Your task to perform on an android device: find snoozed emails in the gmail app Image 0: 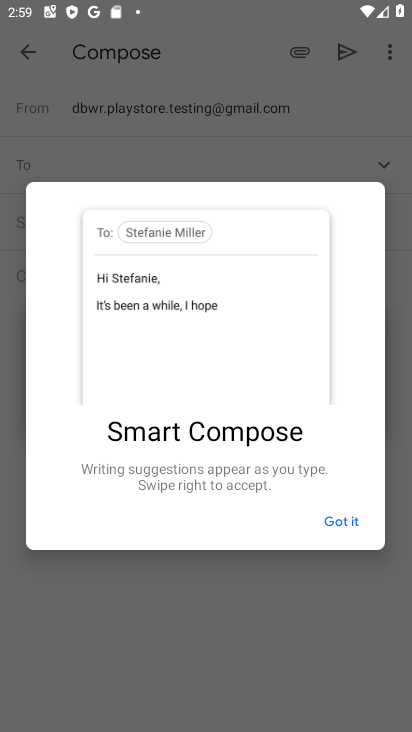
Step 0: press home button
Your task to perform on an android device: find snoozed emails in the gmail app Image 1: 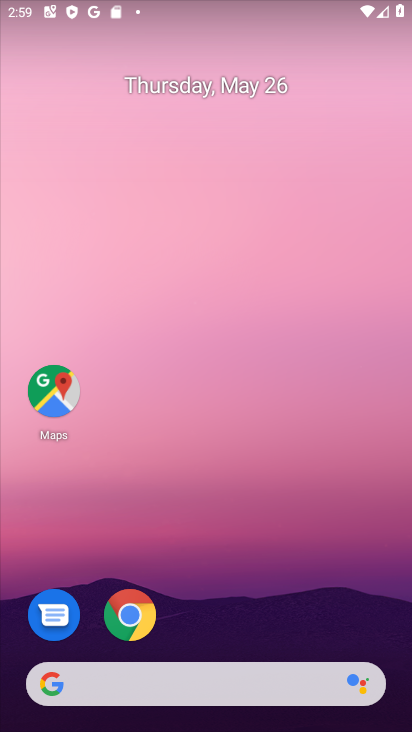
Step 1: drag from (211, 622) to (211, 36)
Your task to perform on an android device: find snoozed emails in the gmail app Image 2: 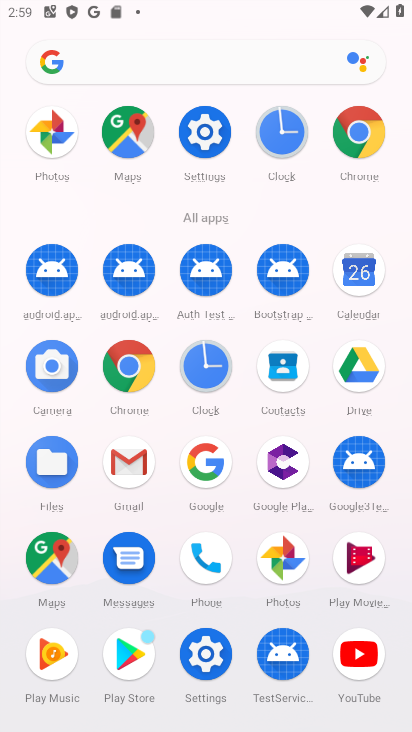
Step 2: click (123, 479)
Your task to perform on an android device: find snoozed emails in the gmail app Image 3: 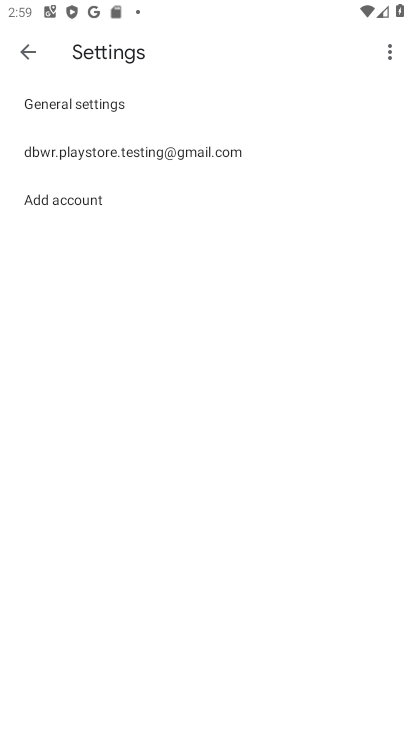
Step 3: click (70, 164)
Your task to perform on an android device: find snoozed emails in the gmail app Image 4: 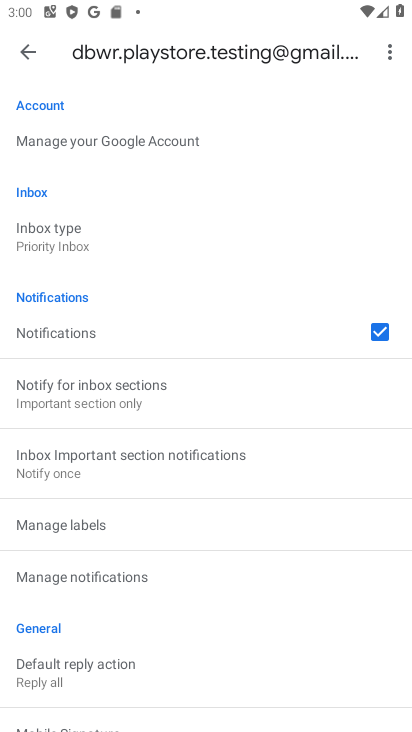
Step 4: click (23, 65)
Your task to perform on an android device: find snoozed emails in the gmail app Image 5: 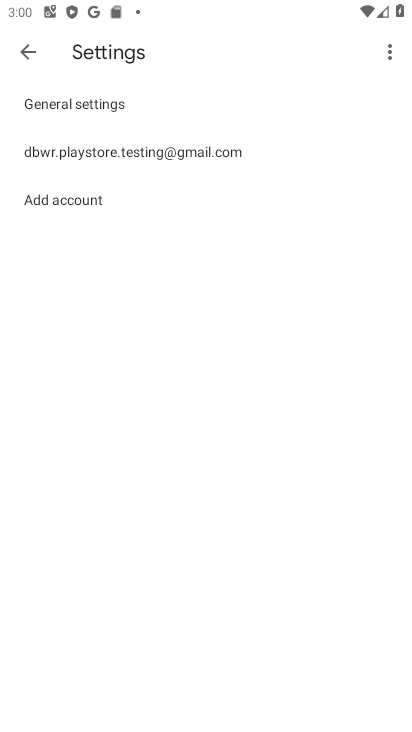
Step 5: click (24, 64)
Your task to perform on an android device: find snoozed emails in the gmail app Image 6: 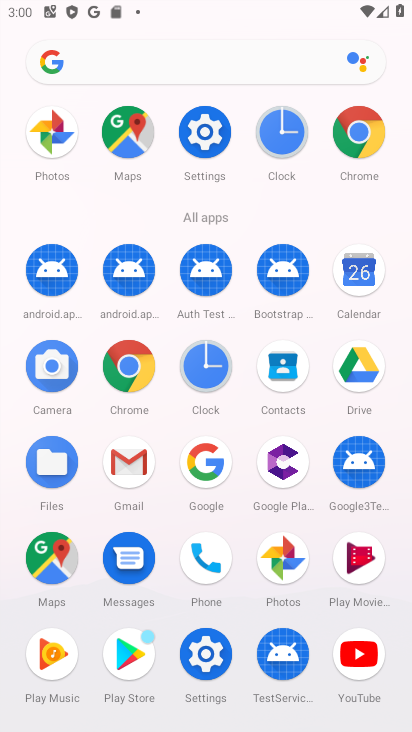
Step 6: click (125, 472)
Your task to perform on an android device: find snoozed emails in the gmail app Image 7: 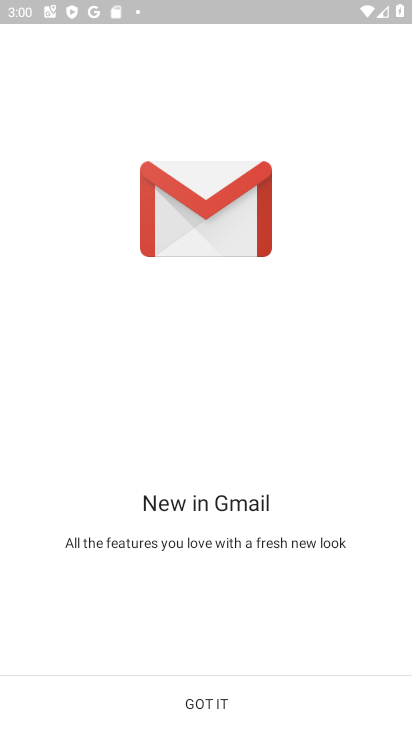
Step 7: click (200, 701)
Your task to perform on an android device: find snoozed emails in the gmail app Image 8: 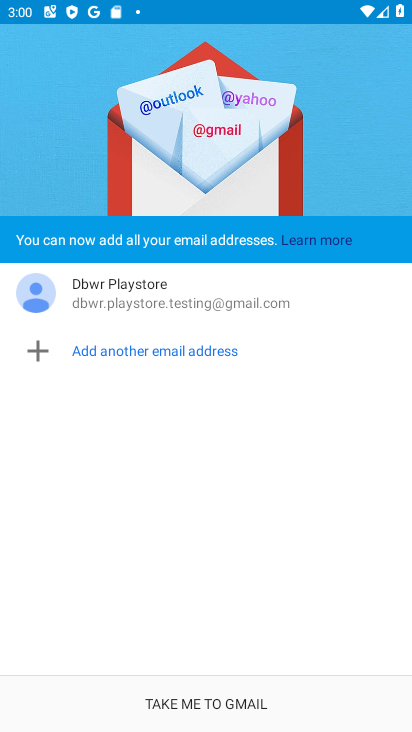
Step 8: click (194, 690)
Your task to perform on an android device: find snoozed emails in the gmail app Image 9: 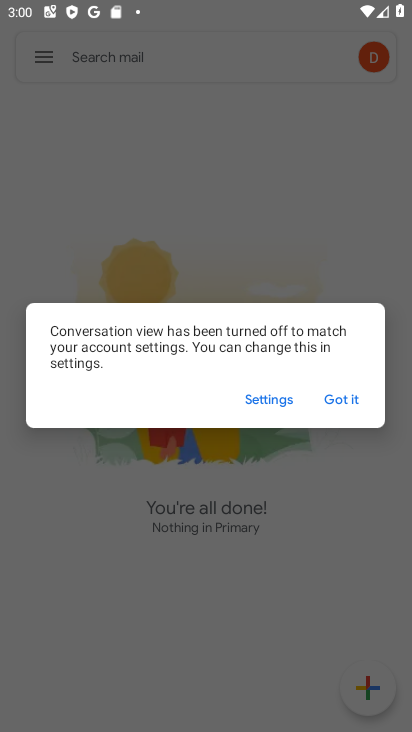
Step 9: click (340, 395)
Your task to perform on an android device: find snoozed emails in the gmail app Image 10: 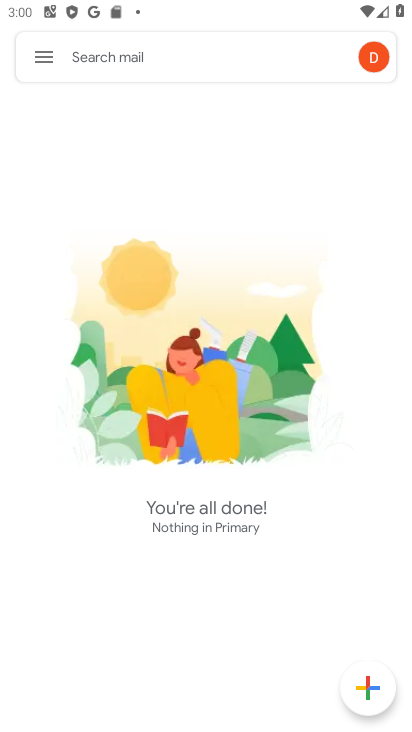
Step 10: click (39, 70)
Your task to perform on an android device: find snoozed emails in the gmail app Image 11: 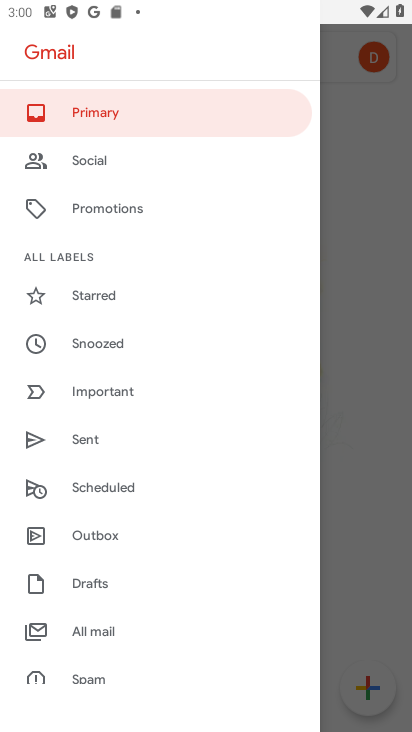
Step 11: click (99, 351)
Your task to perform on an android device: find snoozed emails in the gmail app Image 12: 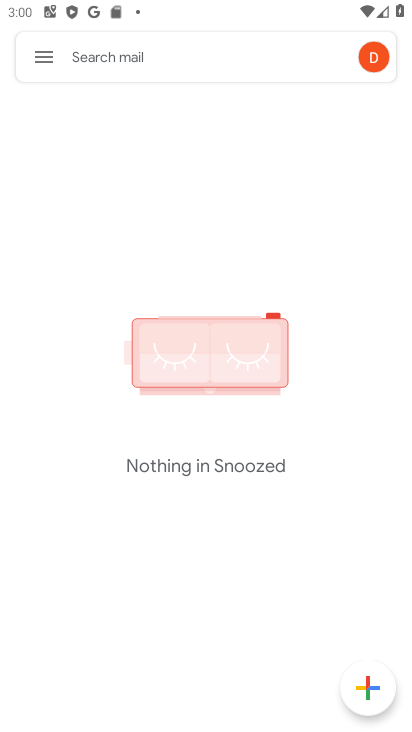
Step 12: task complete